Your task to perform on an android device: find photos in the google photos app Image 0: 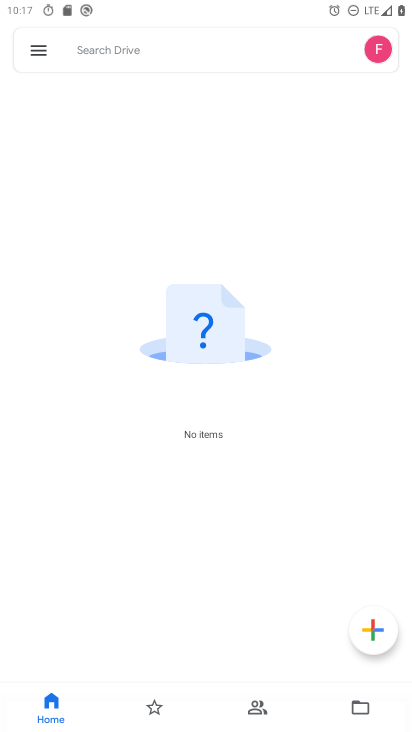
Step 0: press home button
Your task to perform on an android device: find photos in the google photos app Image 1: 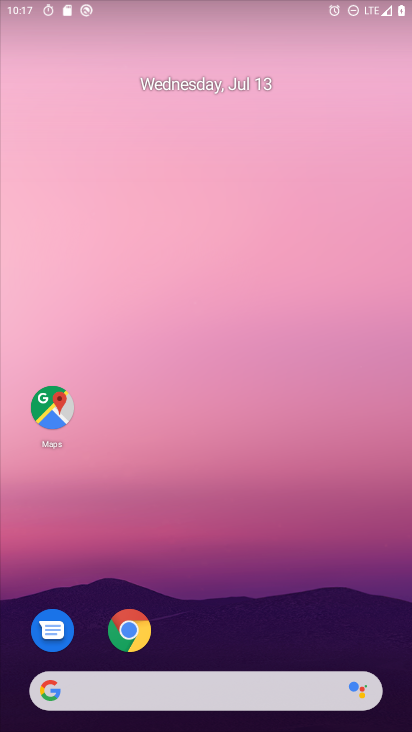
Step 1: drag from (405, 679) to (230, 33)
Your task to perform on an android device: find photos in the google photos app Image 2: 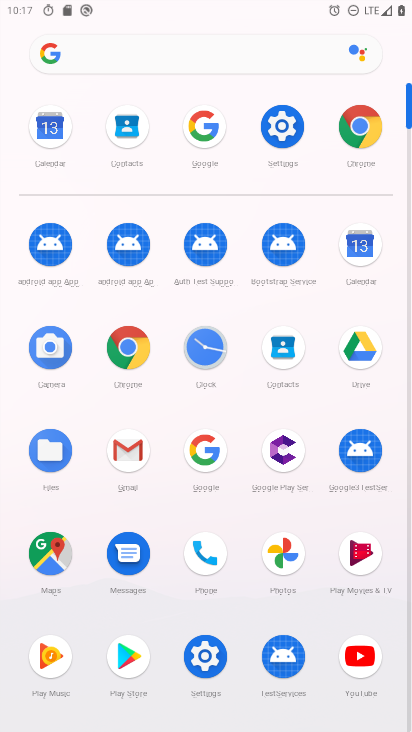
Step 2: click (277, 550)
Your task to perform on an android device: find photos in the google photos app Image 3: 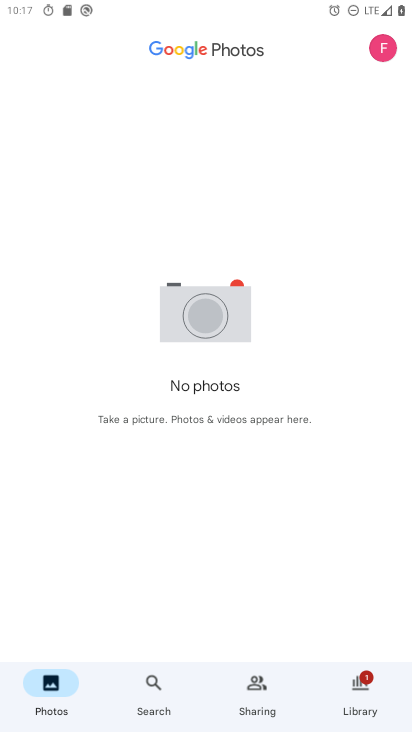
Step 3: task complete